Your task to perform on an android device: Open privacy settings Image 0: 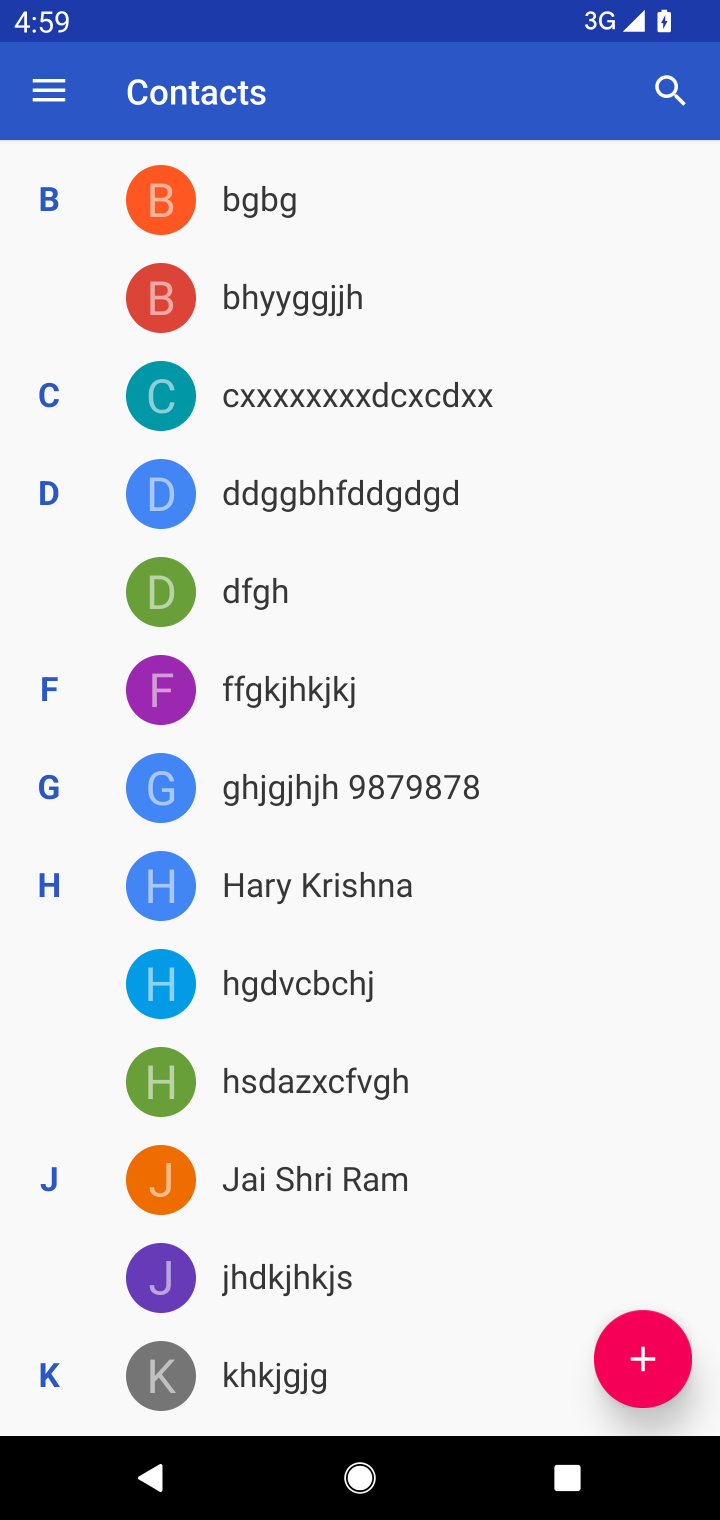
Step 0: press home button
Your task to perform on an android device: Open privacy settings Image 1: 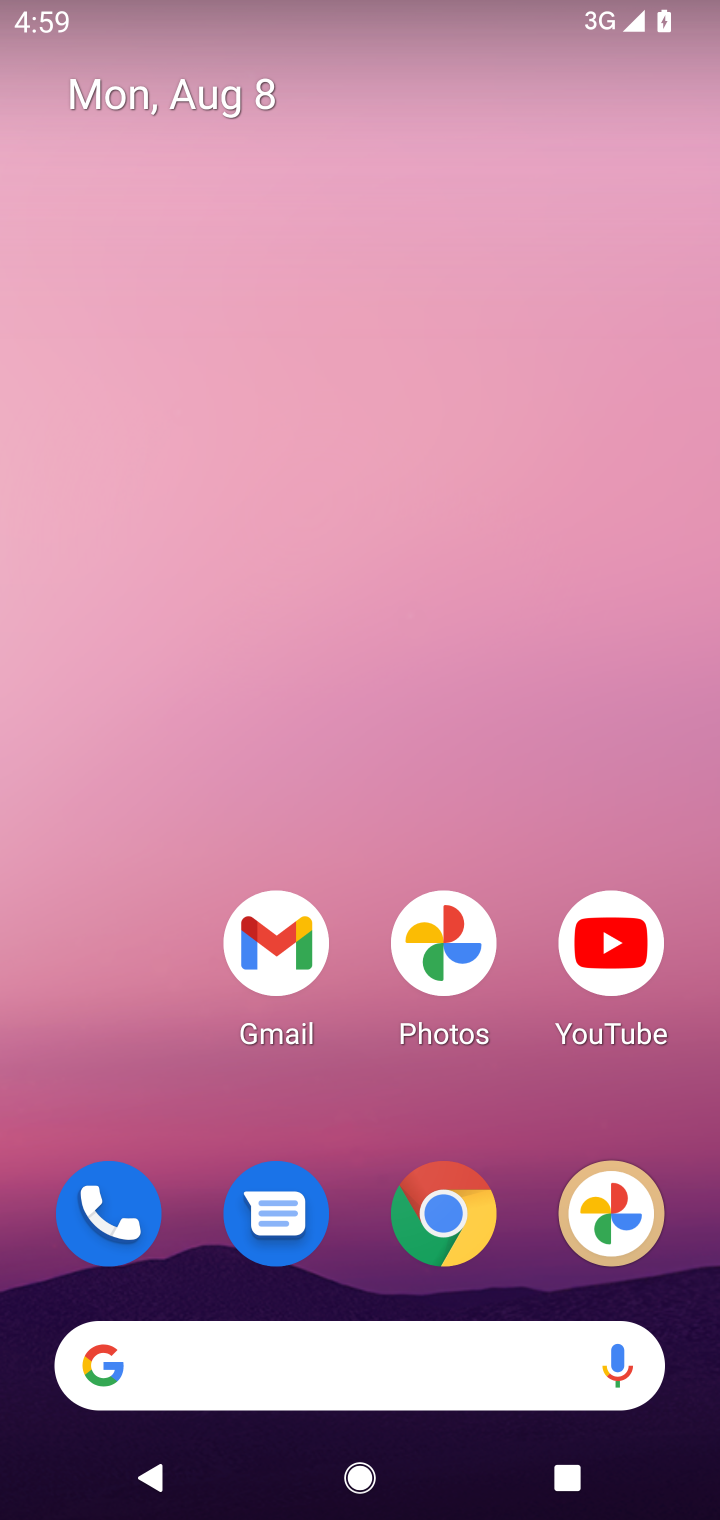
Step 1: drag from (516, 1108) to (490, 146)
Your task to perform on an android device: Open privacy settings Image 2: 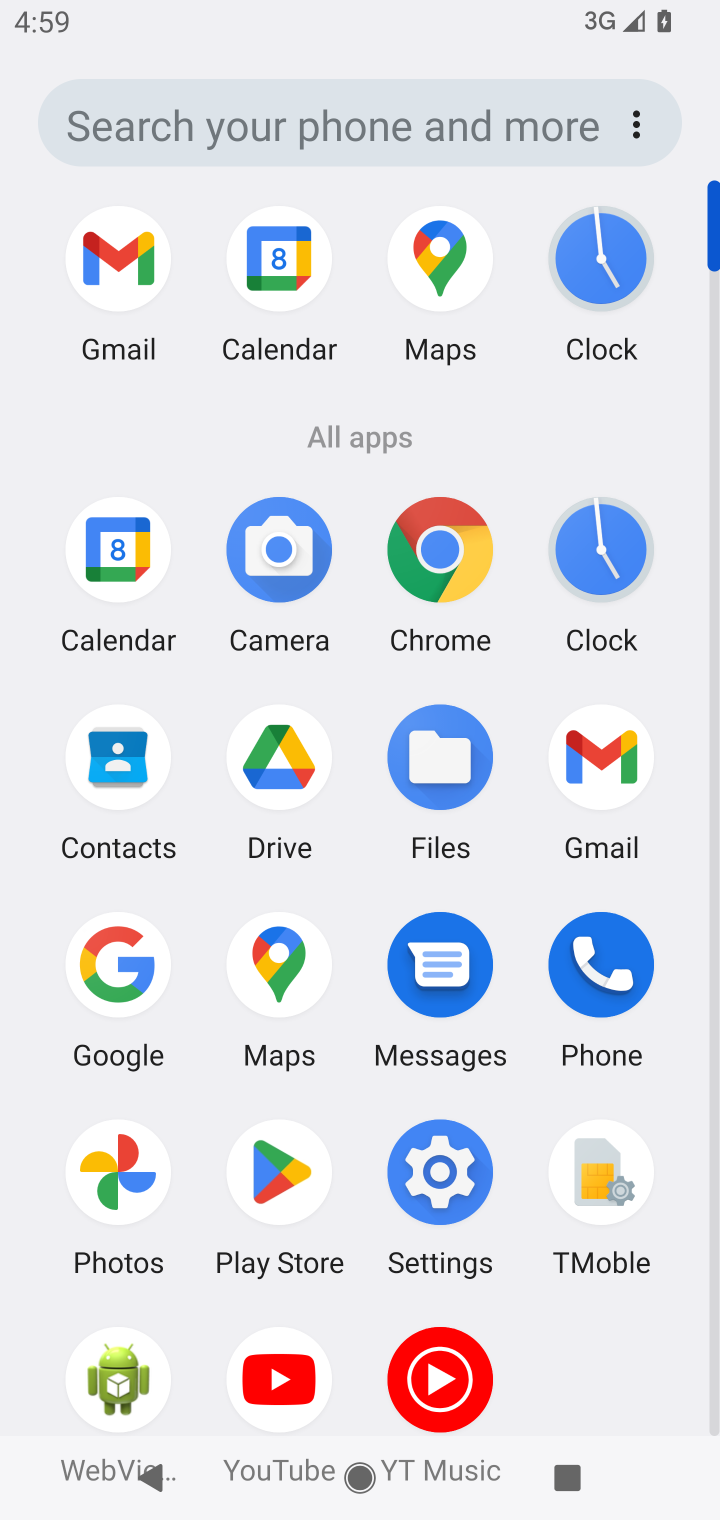
Step 2: click (420, 1162)
Your task to perform on an android device: Open privacy settings Image 3: 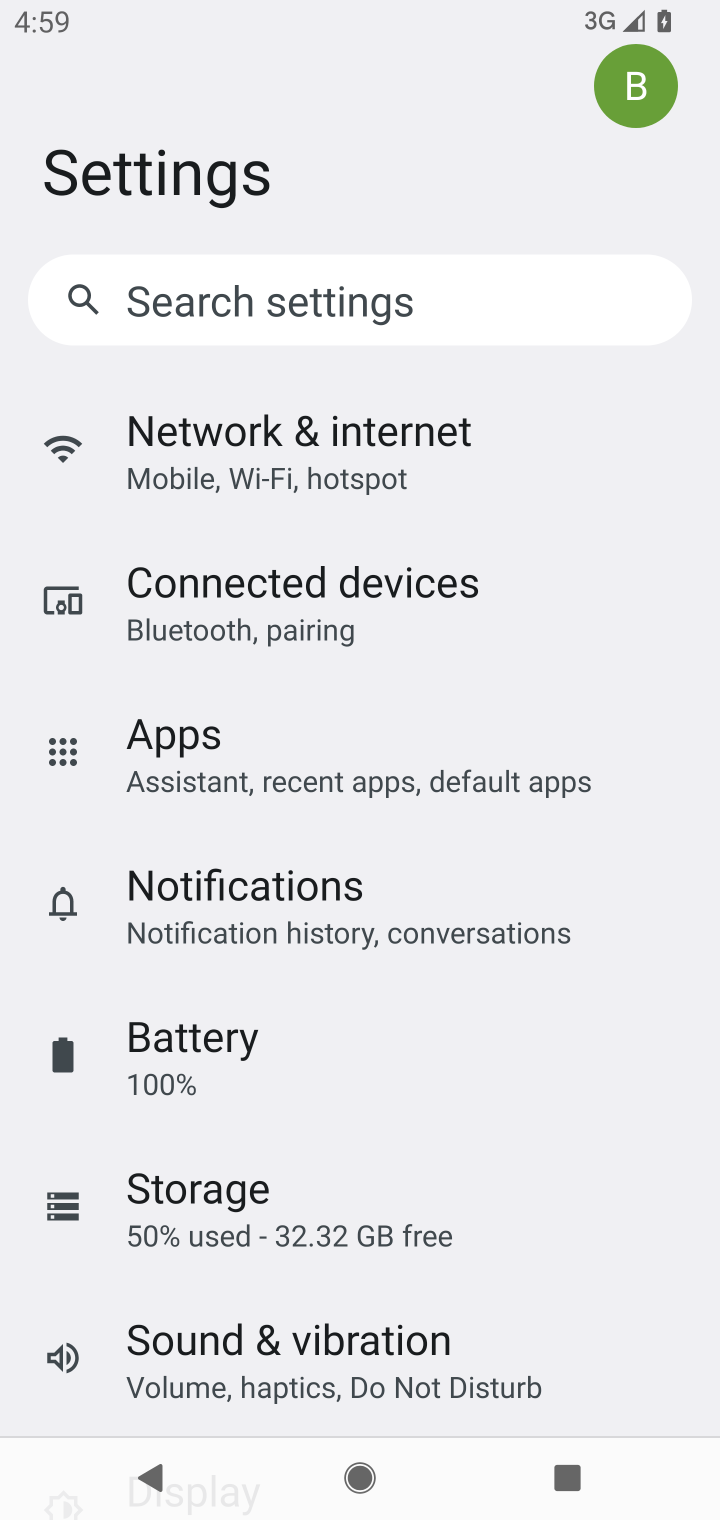
Step 3: drag from (288, 1237) to (288, 539)
Your task to perform on an android device: Open privacy settings Image 4: 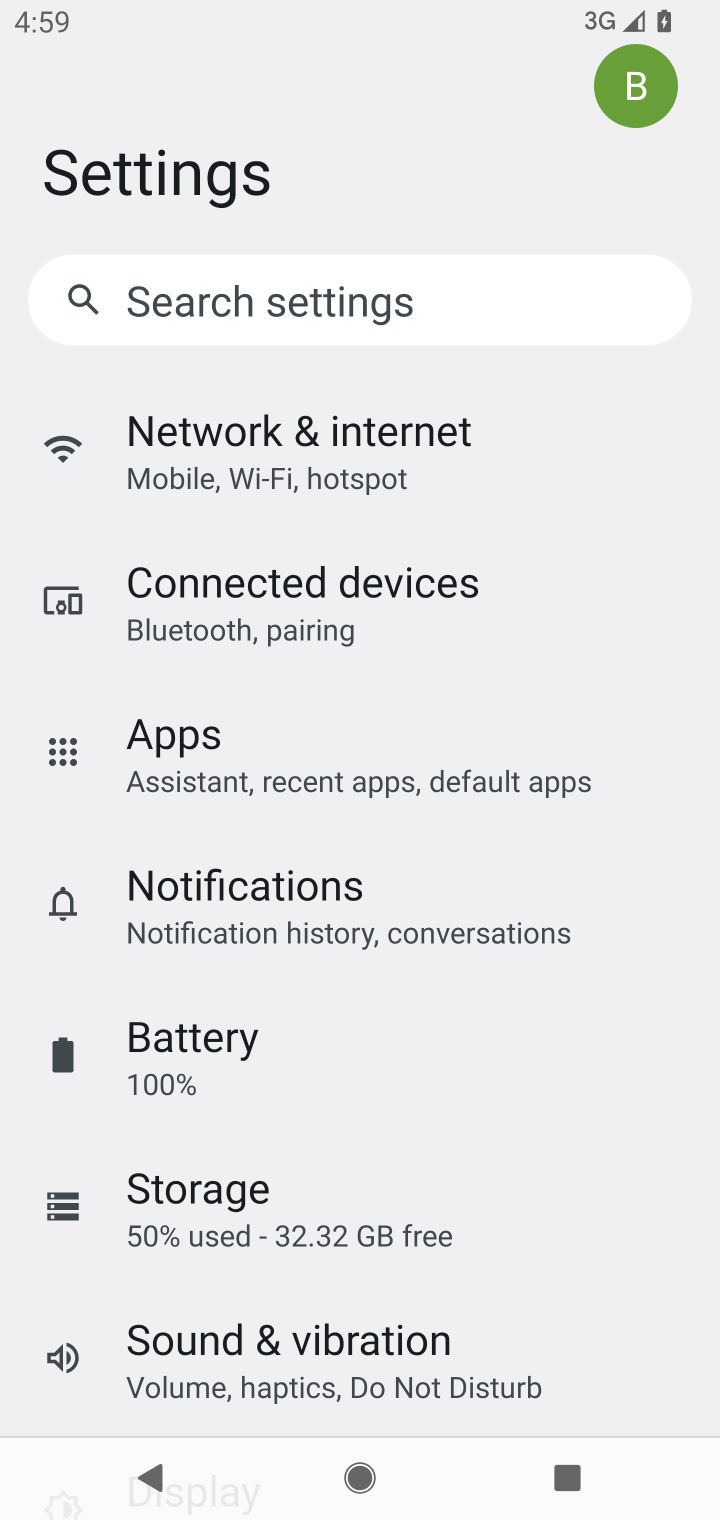
Step 4: drag from (263, 1269) to (261, 329)
Your task to perform on an android device: Open privacy settings Image 5: 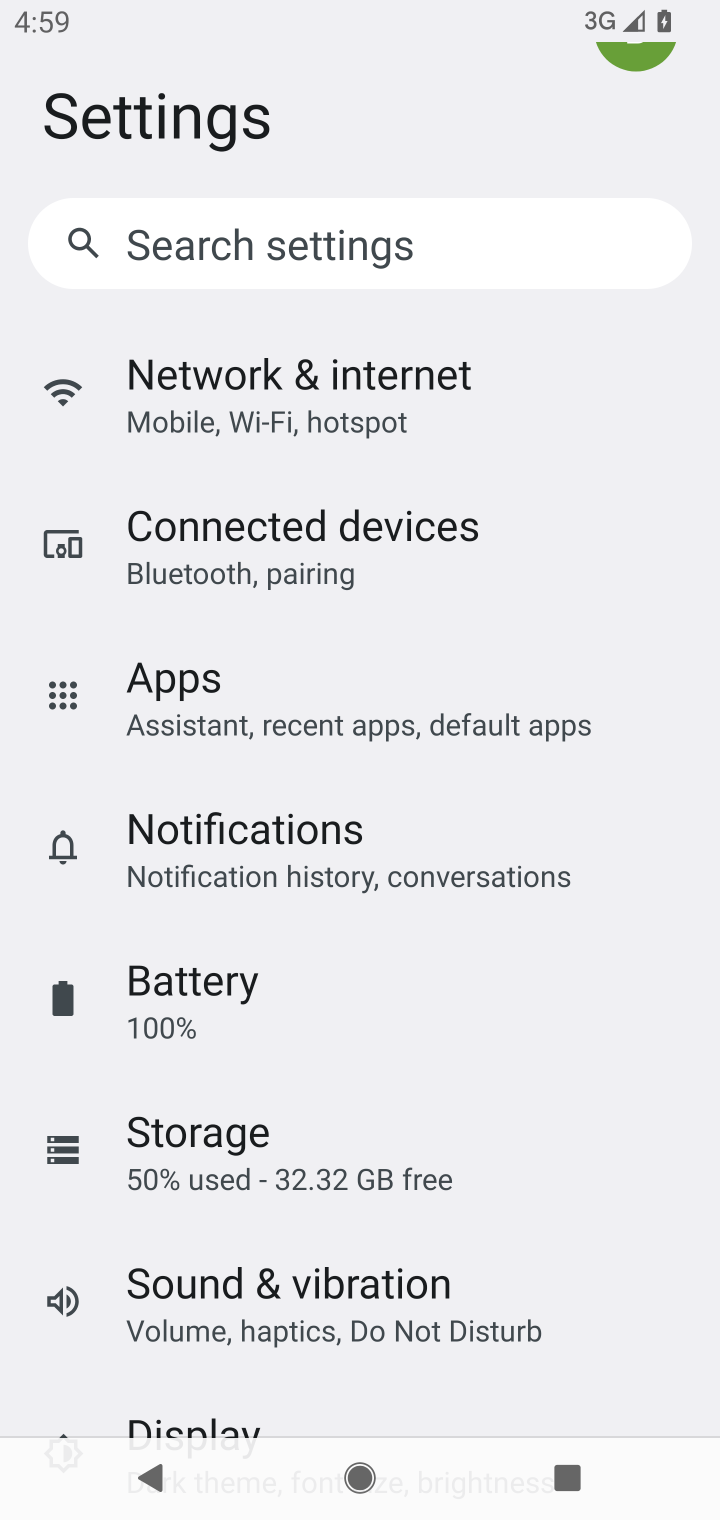
Step 5: drag from (137, 1248) to (103, 299)
Your task to perform on an android device: Open privacy settings Image 6: 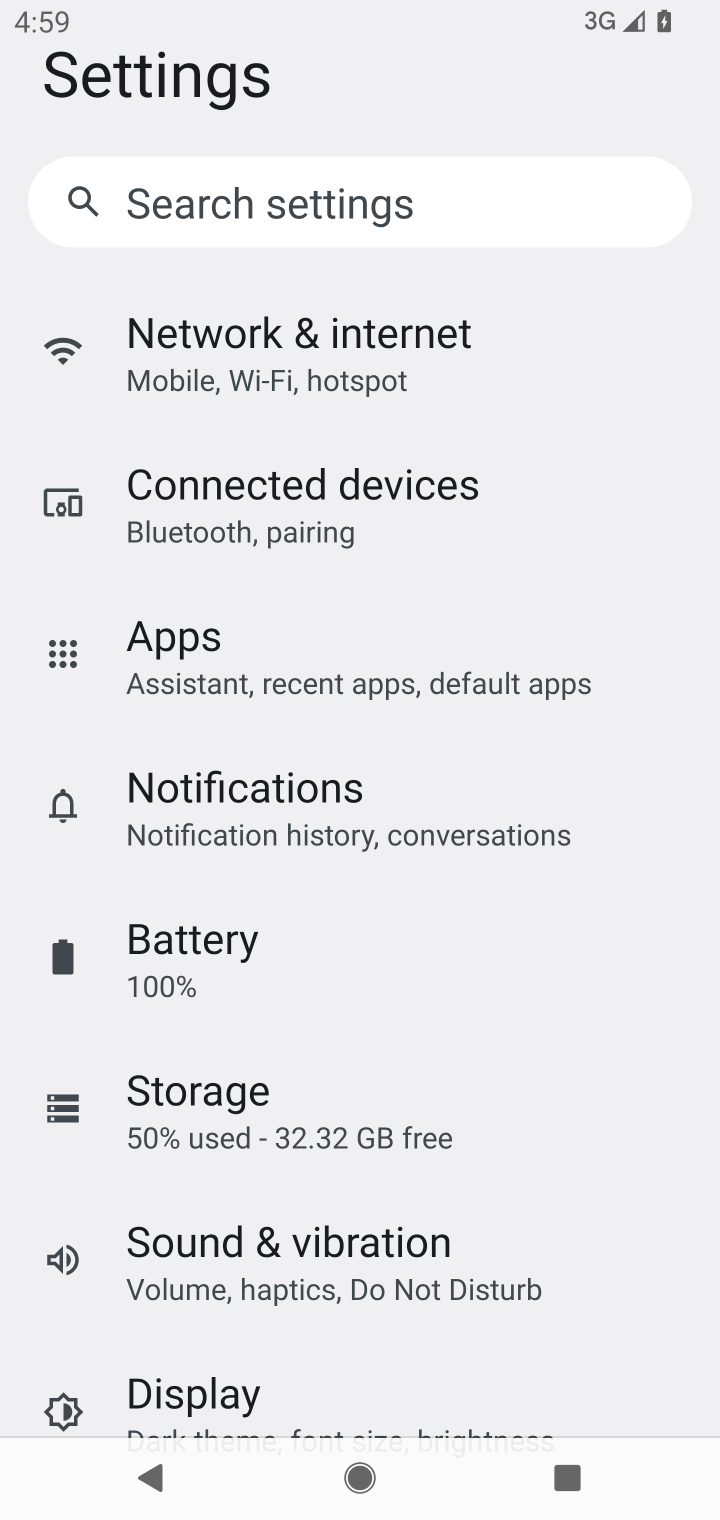
Step 6: drag from (338, 1229) to (318, 531)
Your task to perform on an android device: Open privacy settings Image 7: 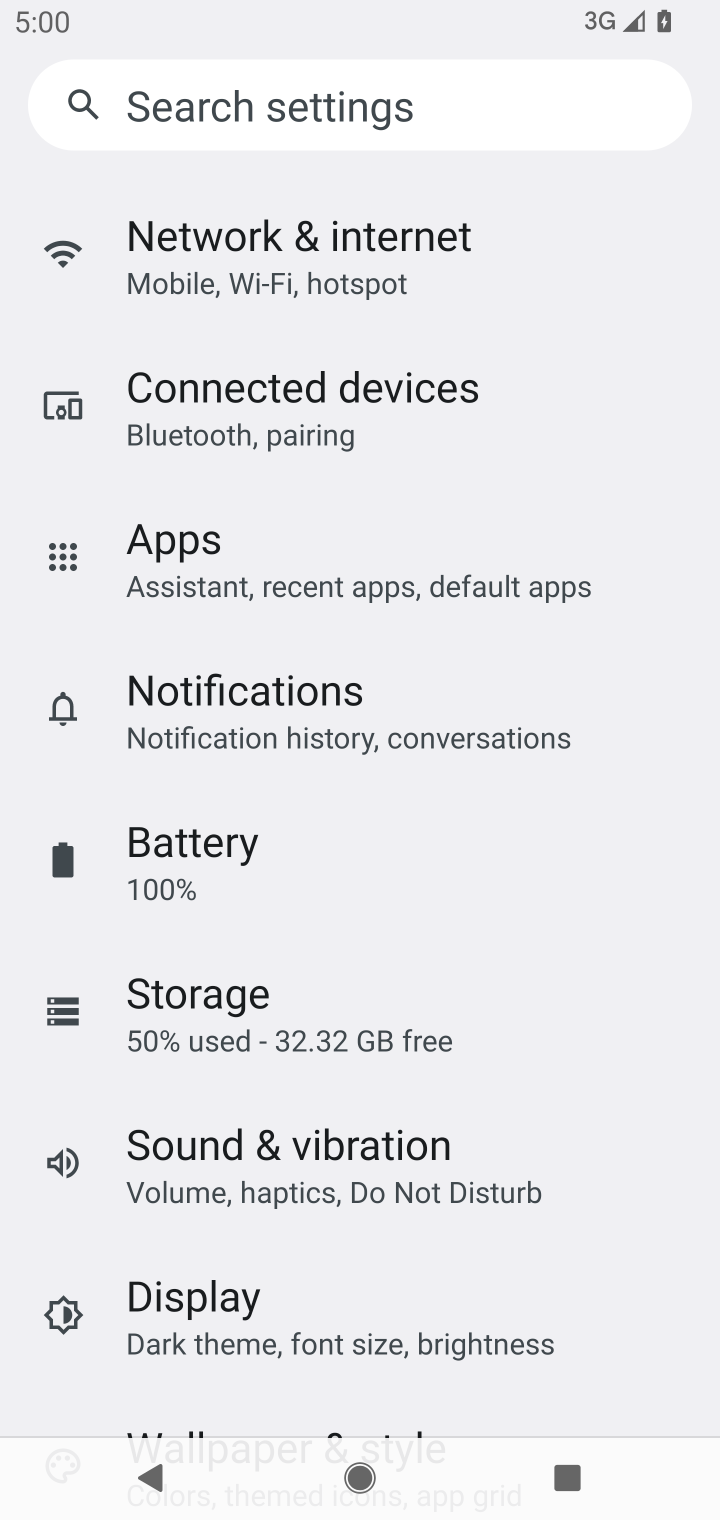
Step 7: drag from (257, 1366) to (190, 508)
Your task to perform on an android device: Open privacy settings Image 8: 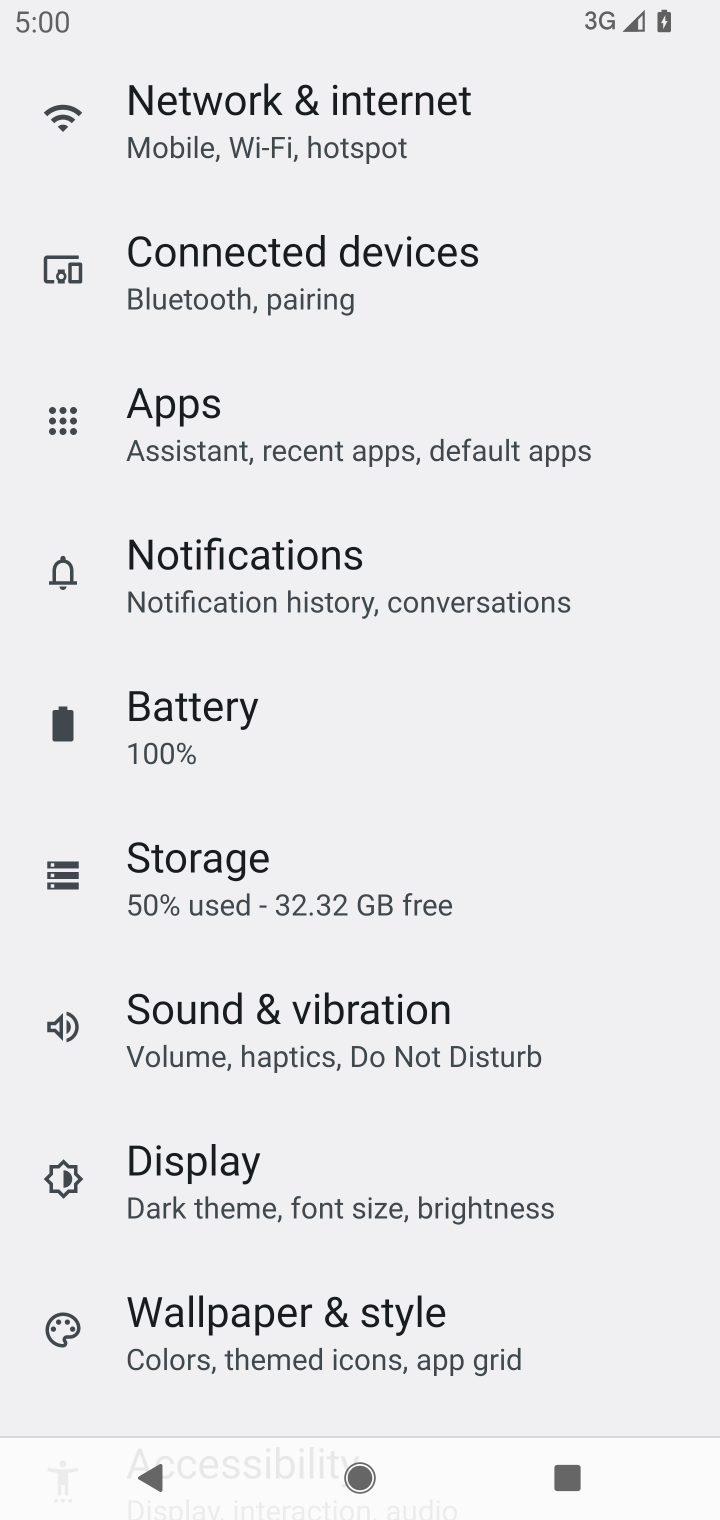
Step 8: drag from (275, 1190) to (275, 130)
Your task to perform on an android device: Open privacy settings Image 9: 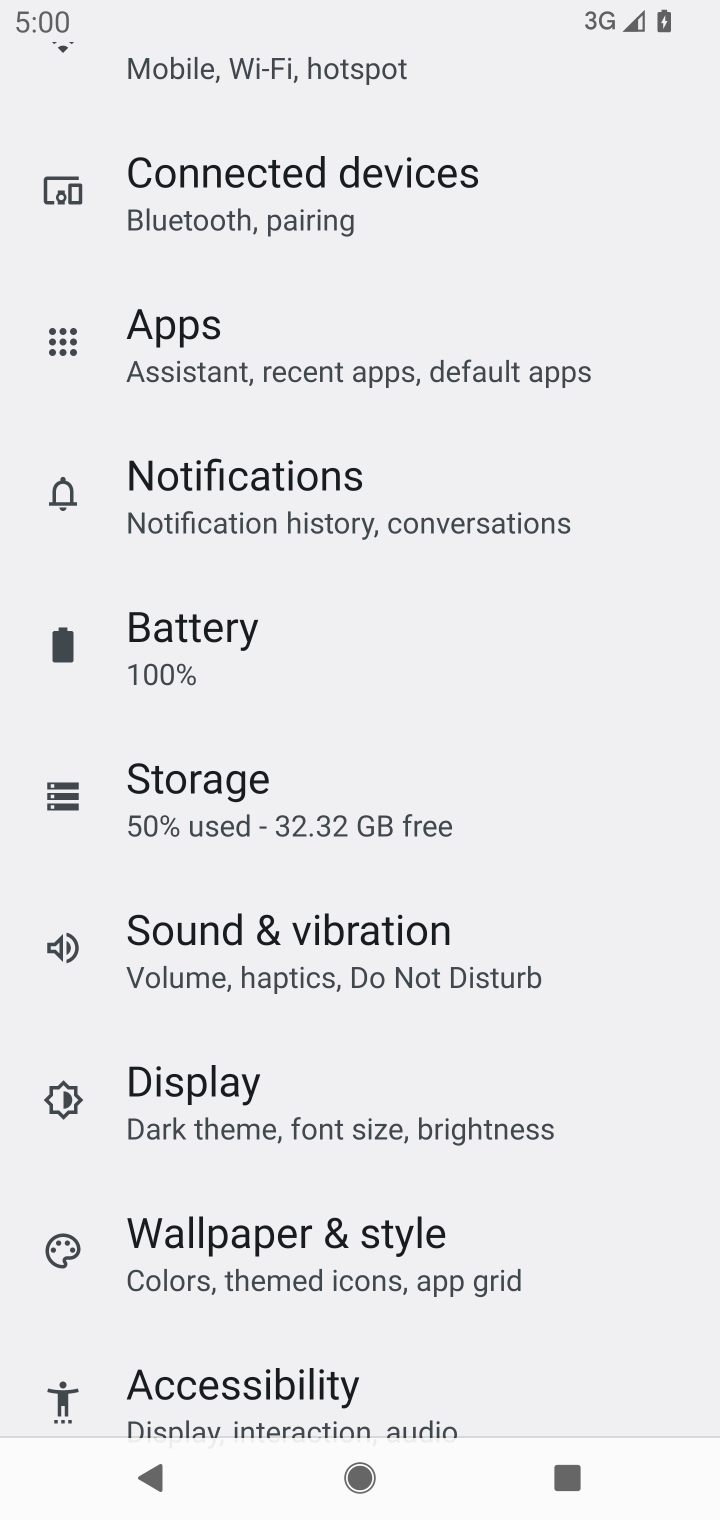
Step 9: drag from (307, 1049) to (254, 108)
Your task to perform on an android device: Open privacy settings Image 10: 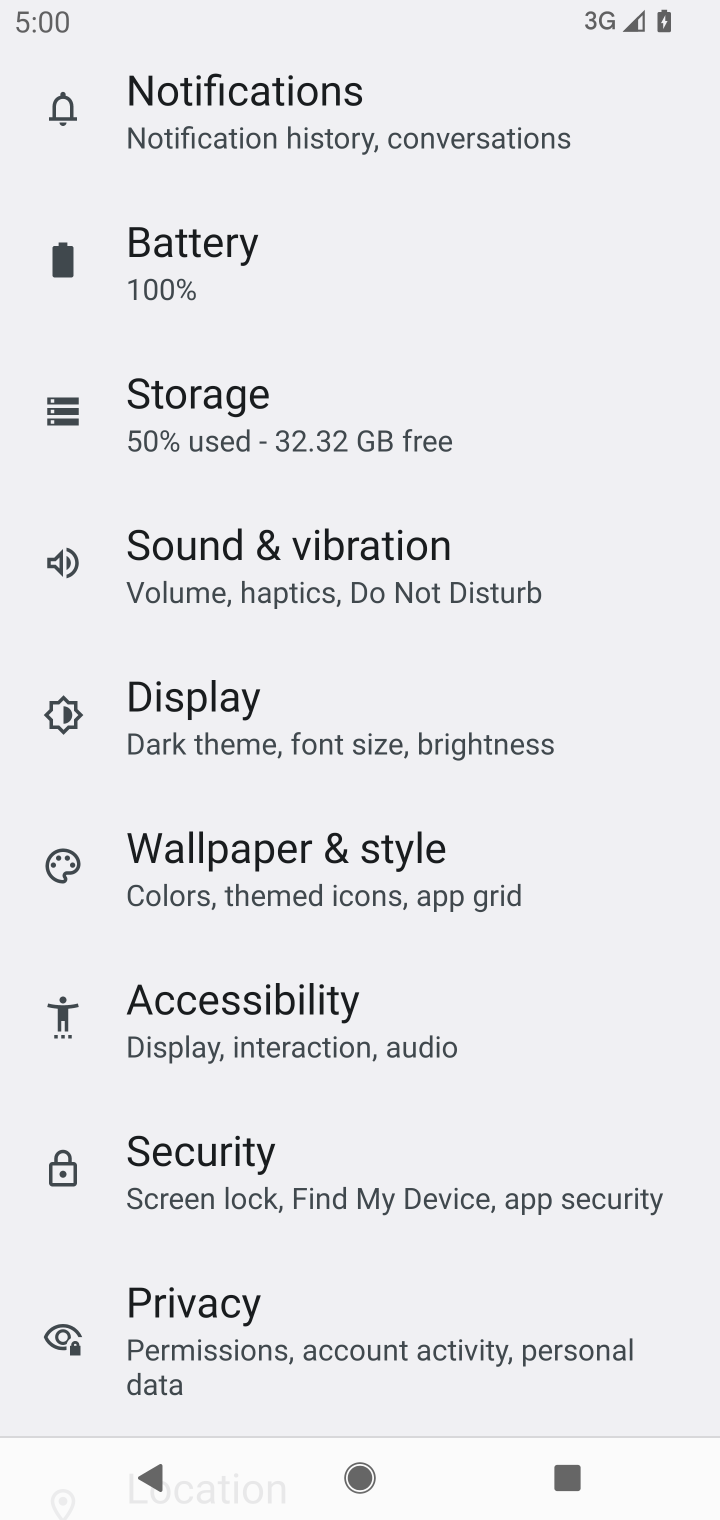
Step 10: click (235, 1294)
Your task to perform on an android device: Open privacy settings Image 11: 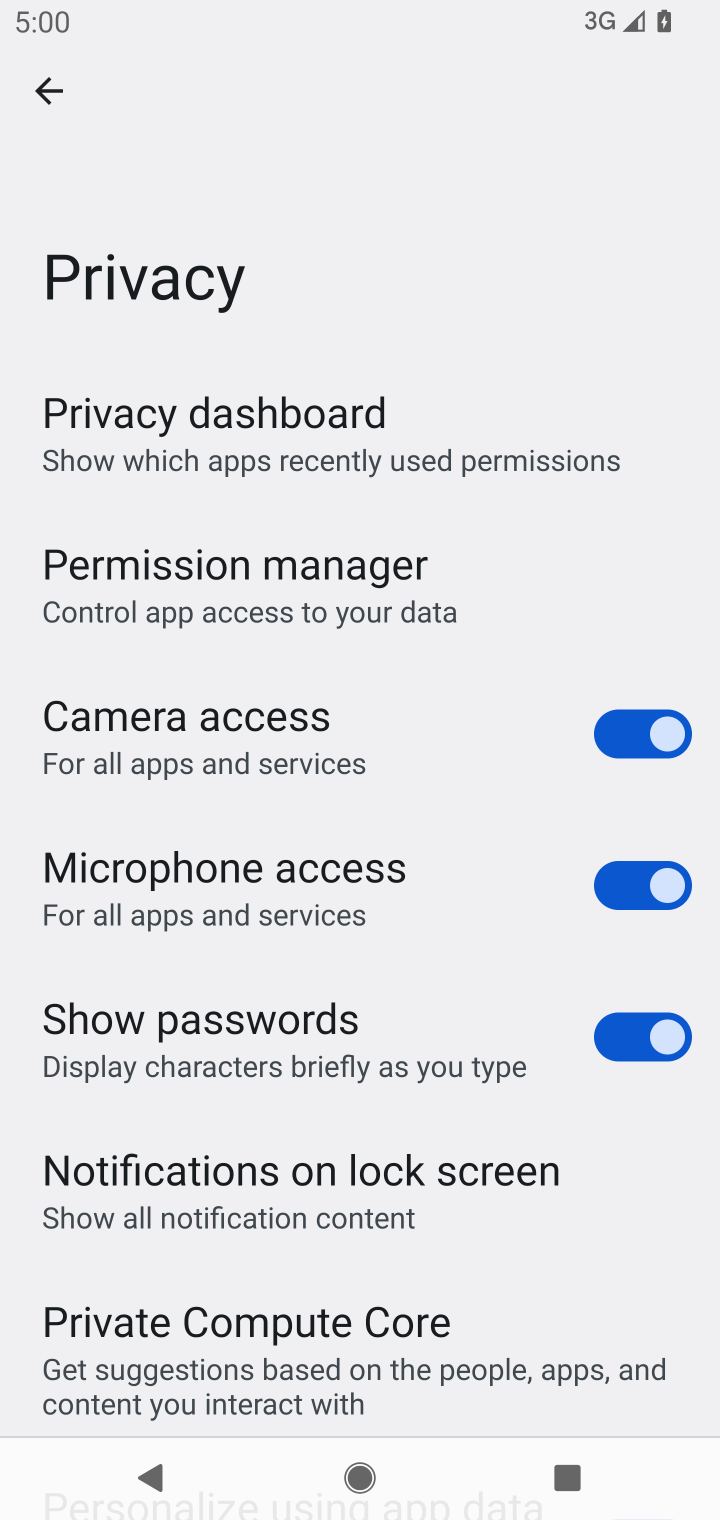
Step 11: task complete